Your task to perform on an android device: empty trash in the gmail app Image 0: 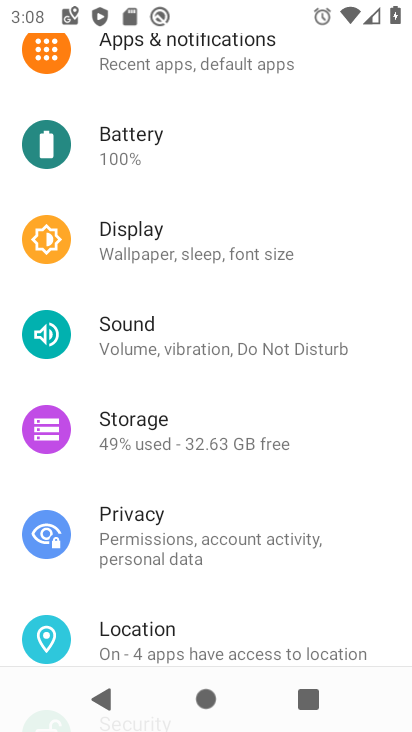
Step 0: press home button
Your task to perform on an android device: empty trash in the gmail app Image 1: 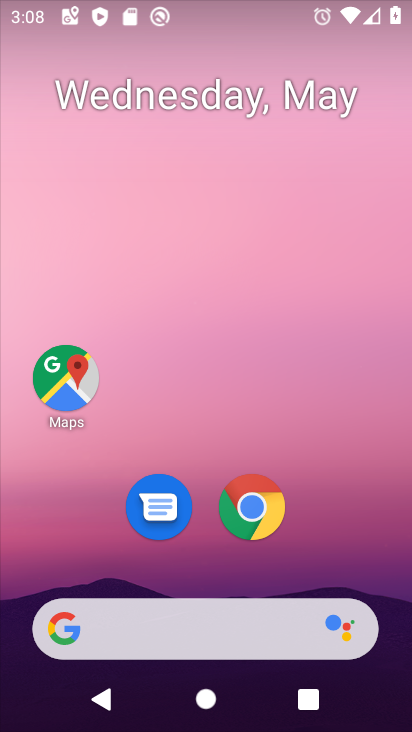
Step 1: drag from (209, 548) to (284, 21)
Your task to perform on an android device: empty trash in the gmail app Image 2: 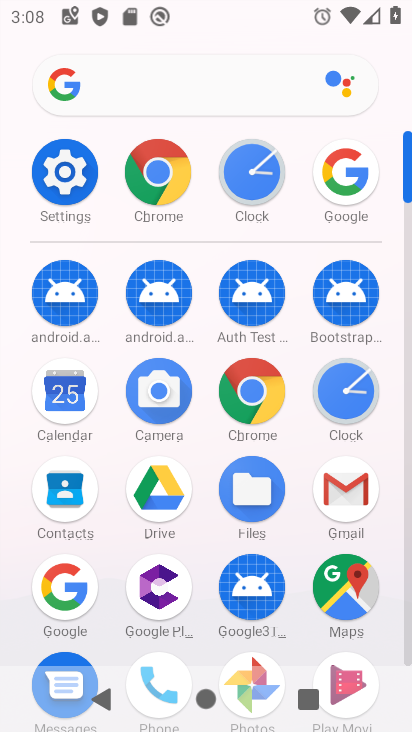
Step 2: click (342, 503)
Your task to perform on an android device: empty trash in the gmail app Image 3: 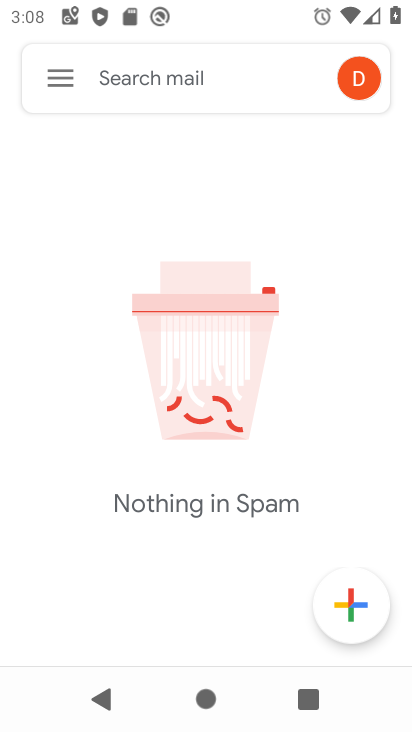
Step 3: click (55, 76)
Your task to perform on an android device: empty trash in the gmail app Image 4: 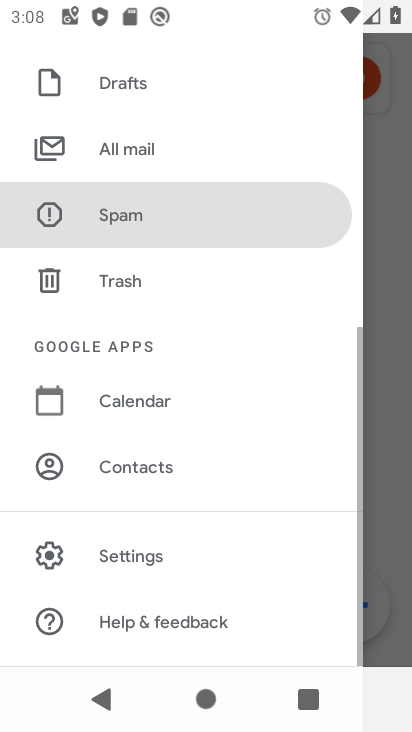
Step 4: click (109, 280)
Your task to perform on an android device: empty trash in the gmail app Image 5: 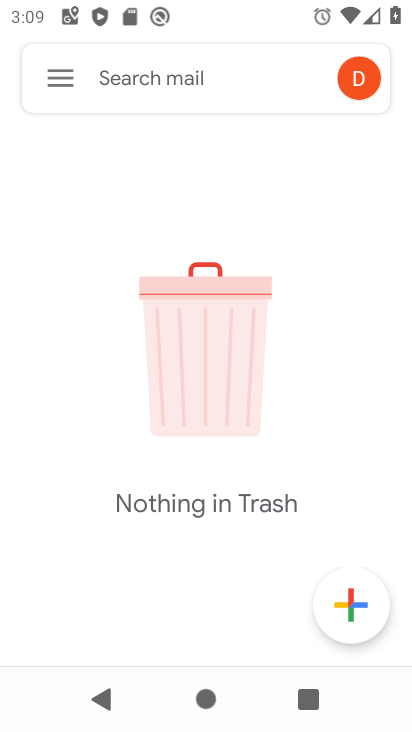
Step 5: task complete